Your task to perform on an android device: delete the emails in spam in the gmail app Image 0: 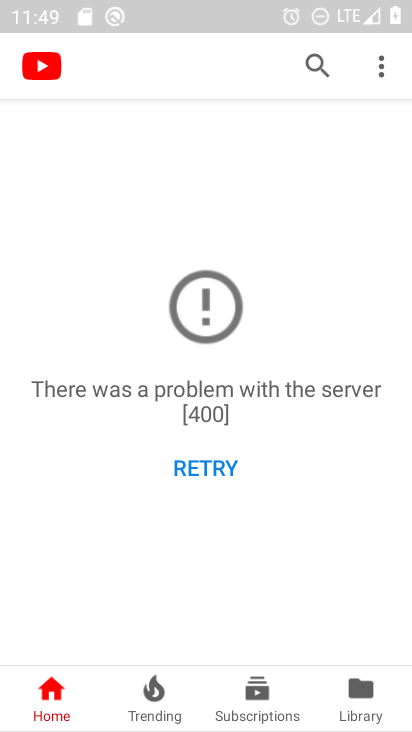
Step 0: press home button
Your task to perform on an android device: delete the emails in spam in the gmail app Image 1: 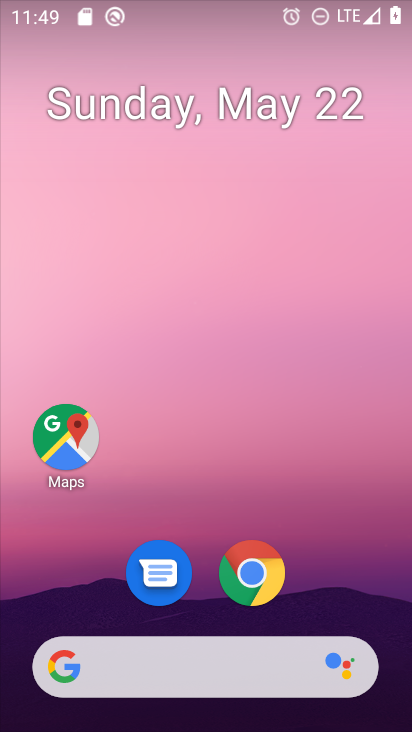
Step 1: drag from (317, 589) to (365, 84)
Your task to perform on an android device: delete the emails in spam in the gmail app Image 2: 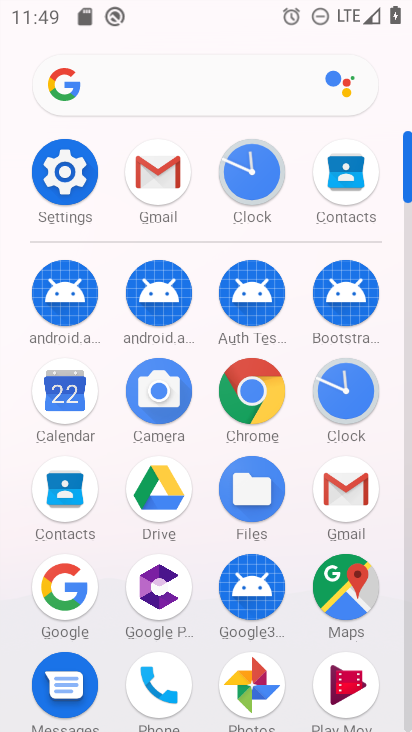
Step 2: click (352, 486)
Your task to perform on an android device: delete the emails in spam in the gmail app Image 3: 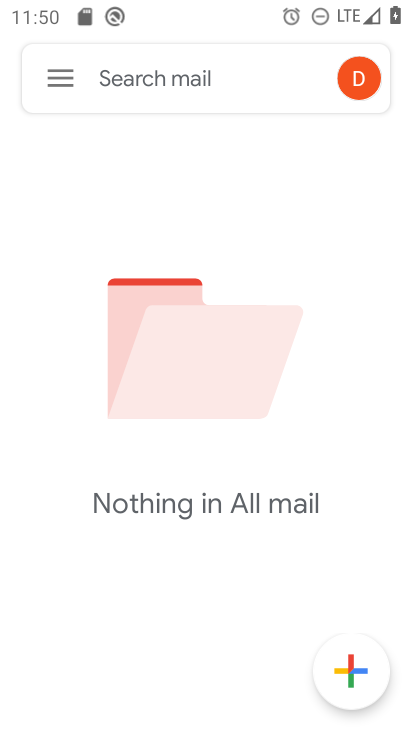
Step 3: click (52, 89)
Your task to perform on an android device: delete the emails in spam in the gmail app Image 4: 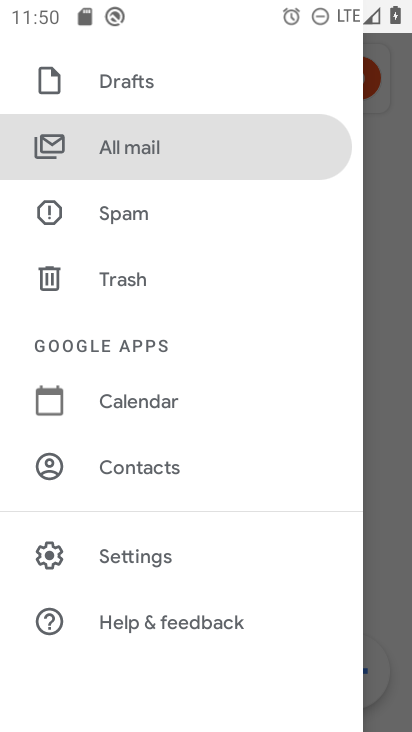
Step 4: click (141, 208)
Your task to perform on an android device: delete the emails in spam in the gmail app Image 5: 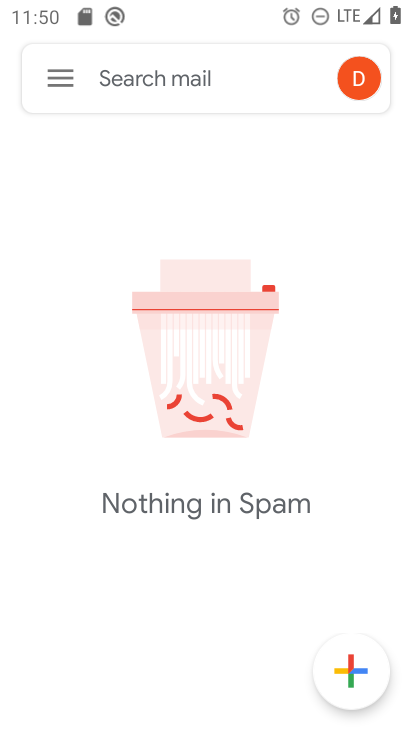
Step 5: task complete